Your task to perform on an android device: turn on improve location accuracy Image 0: 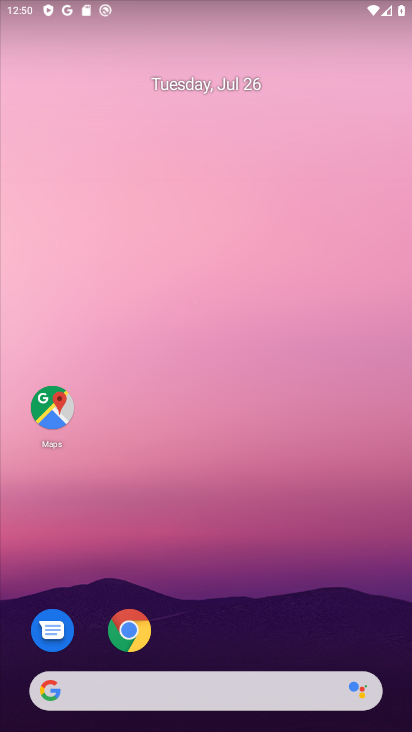
Step 0: drag from (209, 529) to (260, 95)
Your task to perform on an android device: turn on improve location accuracy Image 1: 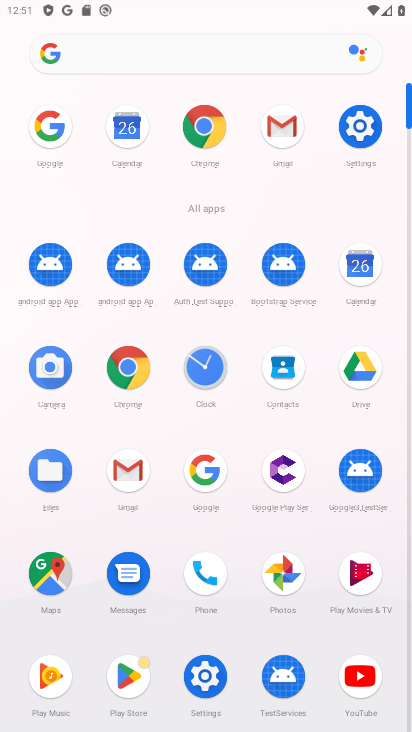
Step 1: click (202, 674)
Your task to perform on an android device: turn on improve location accuracy Image 2: 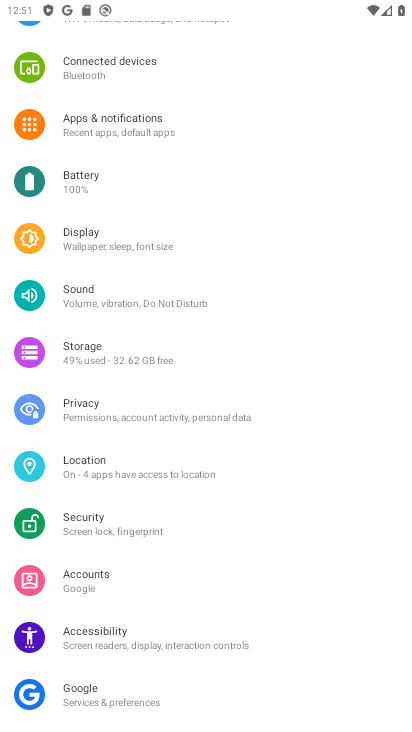
Step 2: click (113, 470)
Your task to perform on an android device: turn on improve location accuracy Image 3: 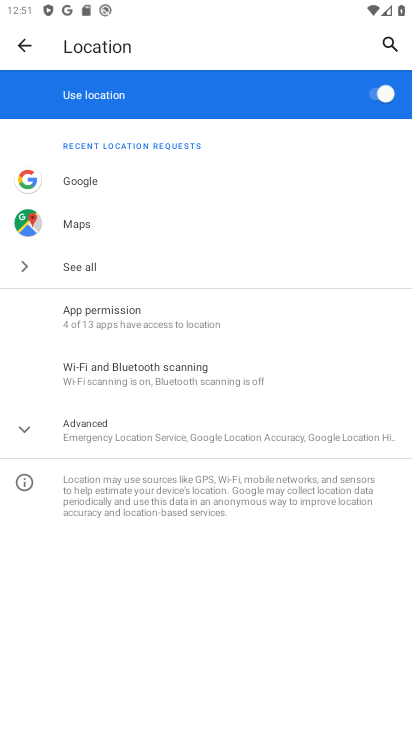
Step 3: click (97, 432)
Your task to perform on an android device: turn on improve location accuracy Image 4: 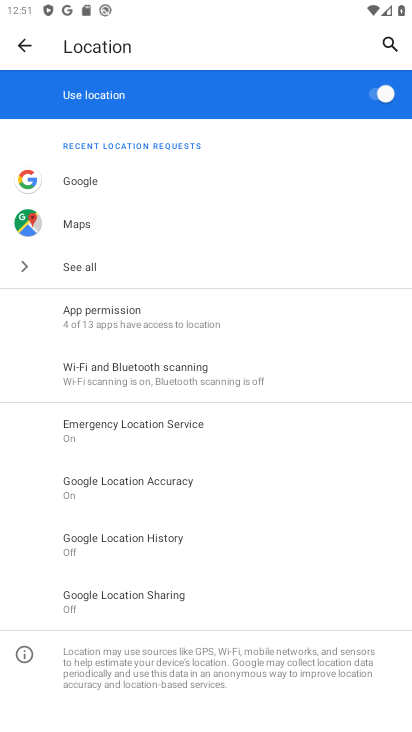
Step 4: click (120, 482)
Your task to perform on an android device: turn on improve location accuracy Image 5: 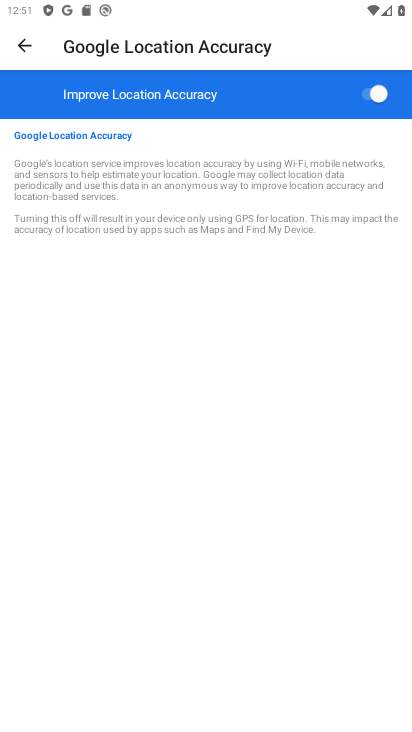
Step 5: task complete